Your task to perform on an android device: Go to Amazon Image 0: 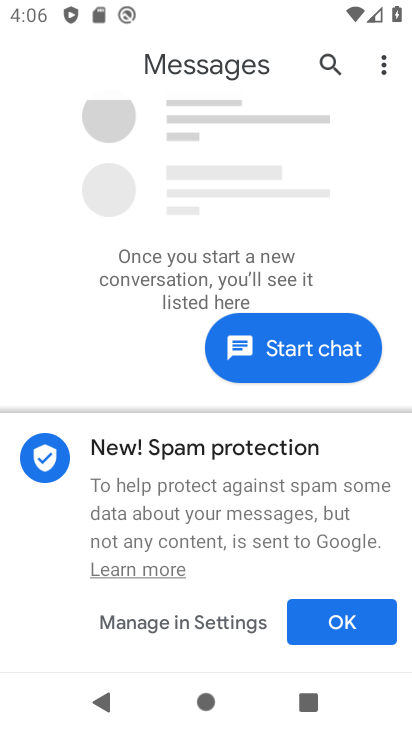
Step 0: press home button
Your task to perform on an android device: Go to Amazon Image 1: 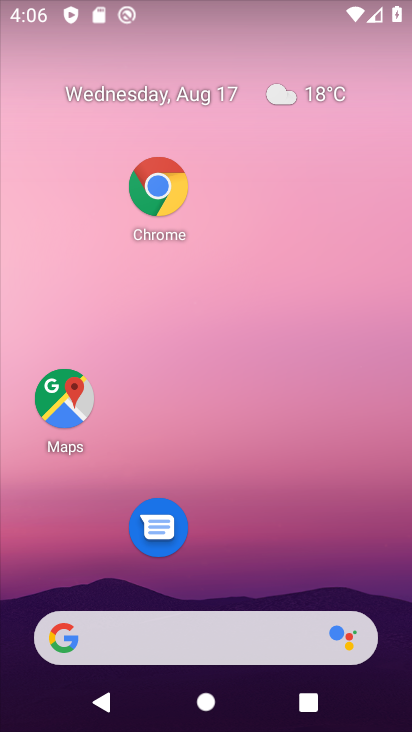
Step 1: drag from (244, 602) to (233, 240)
Your task to perform on an android device: Go to Amazon Image 2: 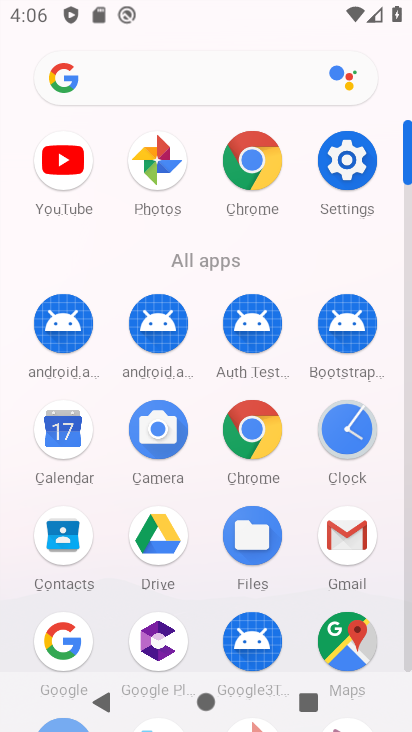
Step 2: click (249, 164)
Your task to perform on an android device: Go to Amazon Image 3: 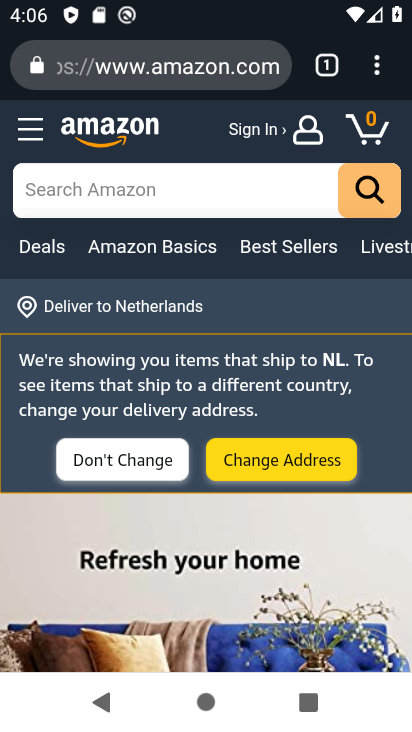
Step 3: task complete